Your task to perform on an android device: choose inbox layout in the gmail app Image 0: 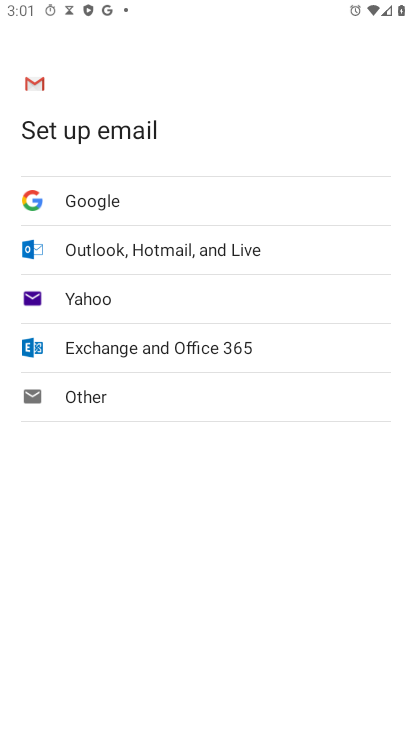
Step 0: press home button
Your task to perform on an android device: choose inbox layout in the gmail app Image 1: 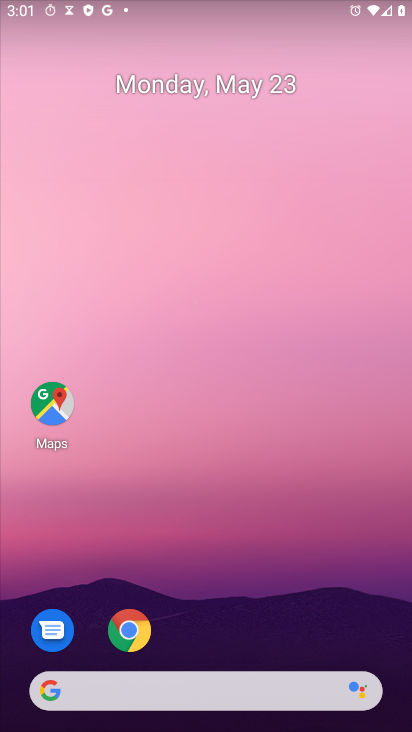
Step 1: drag from (329, 580) to (334, 21)
Your task to perform on an android device: choose inbox layout in the gmail app Image 2: 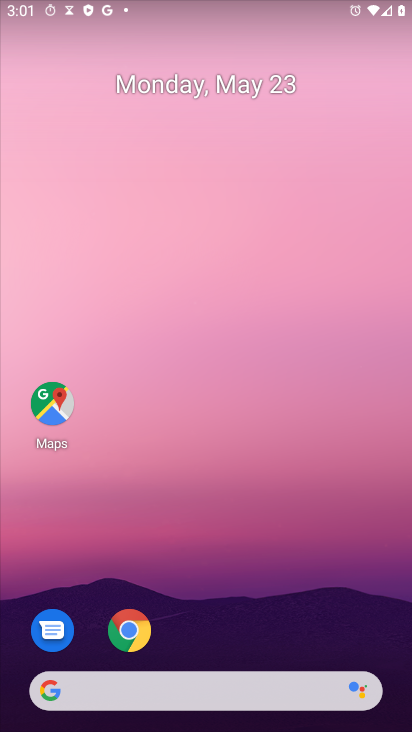
Step 2: drag from (299, 562) to (304, 34)
Your task to perform on an android device: choose inbox layout in the gmail app Image 3: 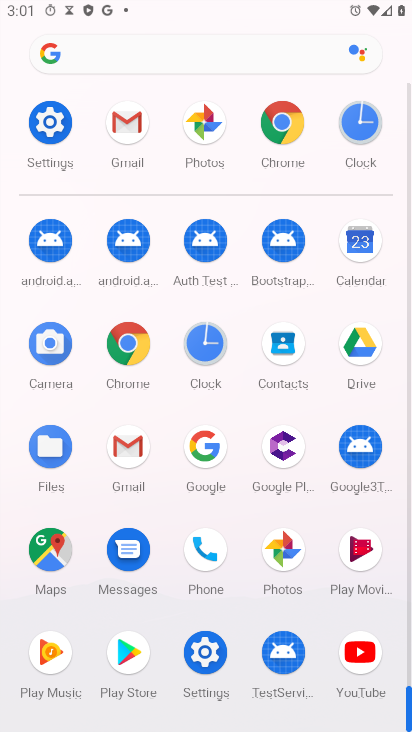
Step 3: click (133, 131)
Your task to perform on an android device: choose inbox layout in the gmail app Image 4: 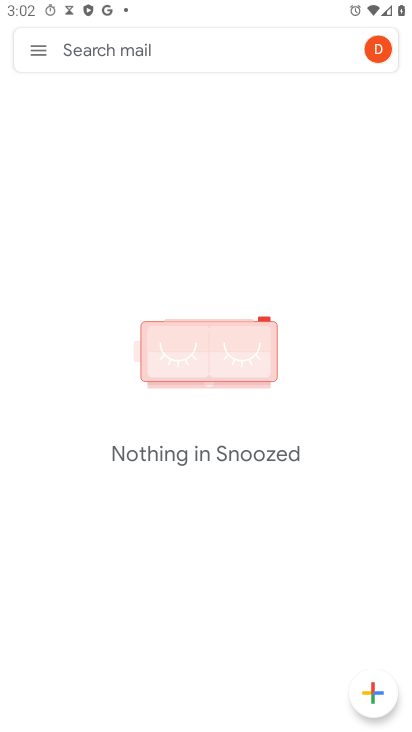
Step 4: click (35, 52)
Your task to perform on an android device: choose inbox layout in the gmail app Image 5: 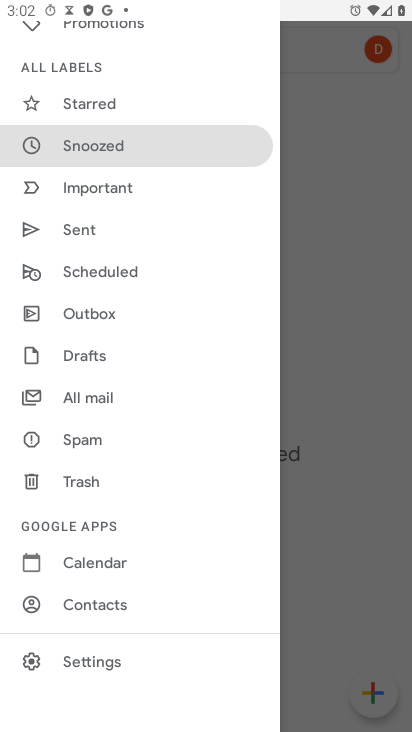
Step 5: click (104, 671)
Your task to perform on an android device: choose inbox layout in the gmail app Image 6: 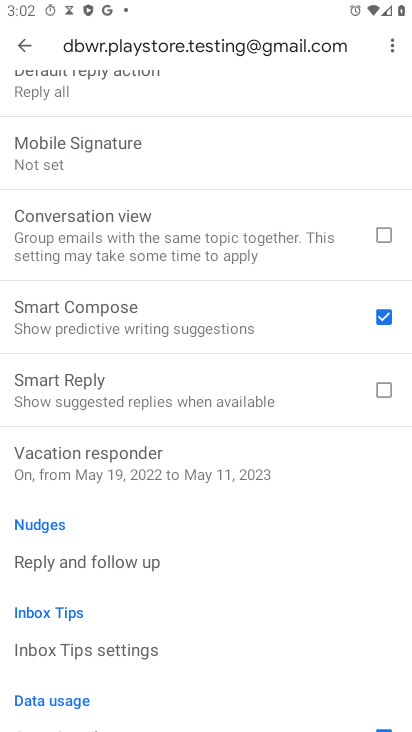
Step 6: drag from (145, 199) to (101, 574)
Your task to perform on an android device: choose inbox layout in the gmail app Image 7: 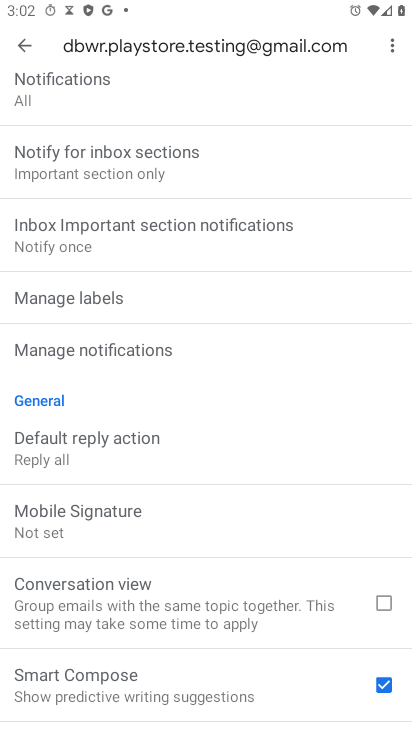
Step 7: drag from (267, 216) to (180, 699)
Your task to perform on an android device: choose inbox layout in the gmail app Image 8: 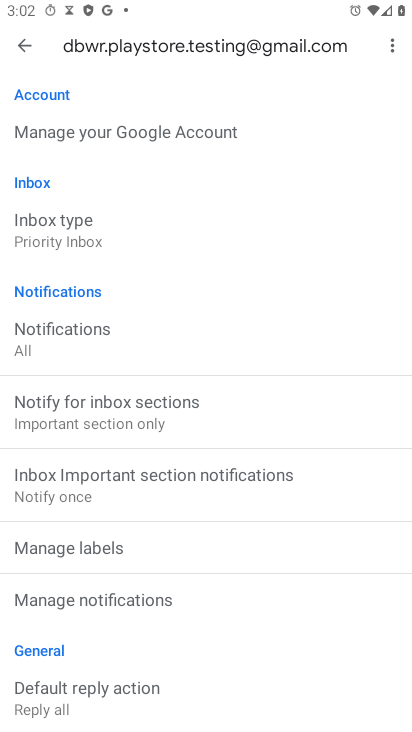
Step 8: click (71, 240)
Your task to perform on an android device: choose inbox layout in the gmail app Image 9: 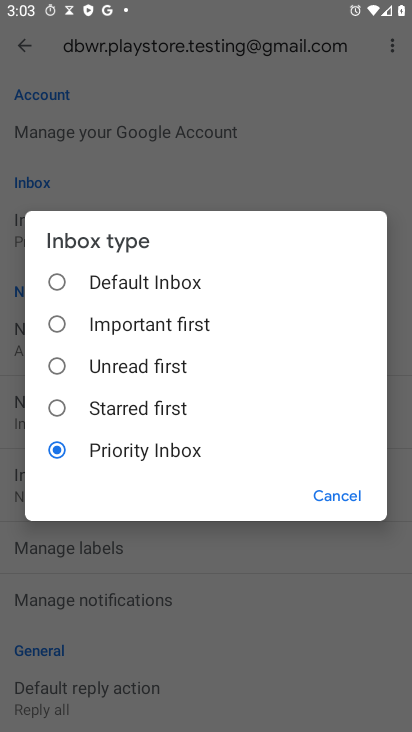
Step 9: click (112, 284)
Your task to perform on an android device: choose inbox layout in the gmail app Image 10: 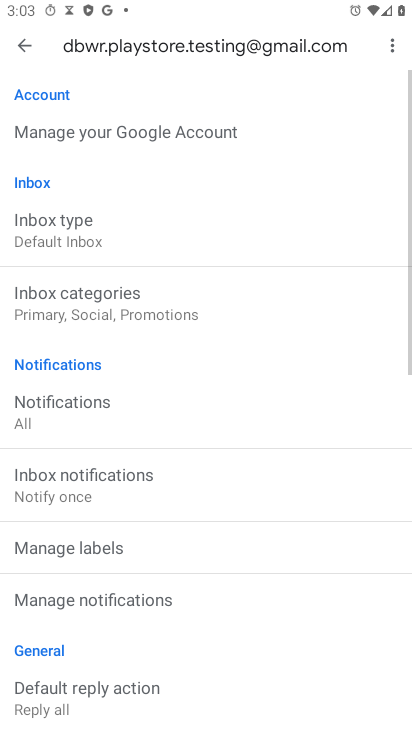
Step 10: task complete